Your task to perform on an android device: Turn on the flashlight Image 0: 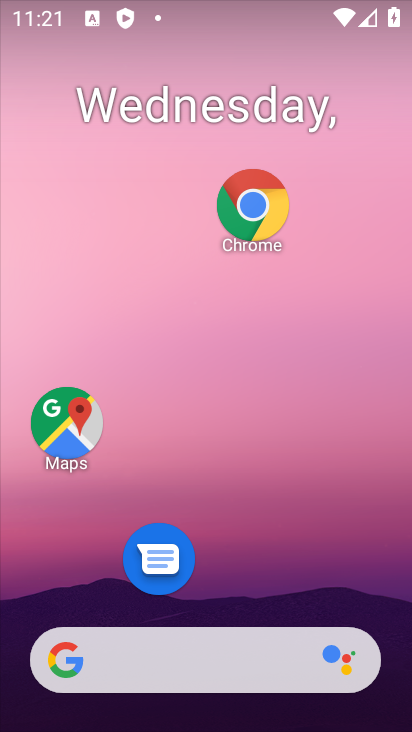
Step 0: drag from (270, 634) to (306, 19)
Your task to perform on an android device: Turn on the flashlight Image 1: 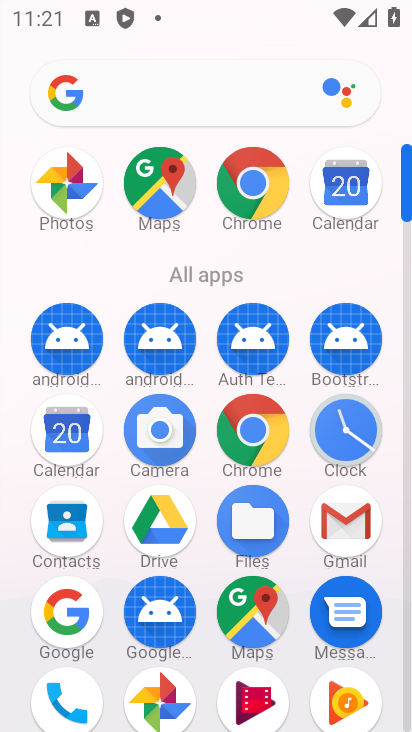
Step 1: drag from (203, 653) to (231, 138)
Your task to perform on an android device: Turn on the flashlight Image 2: 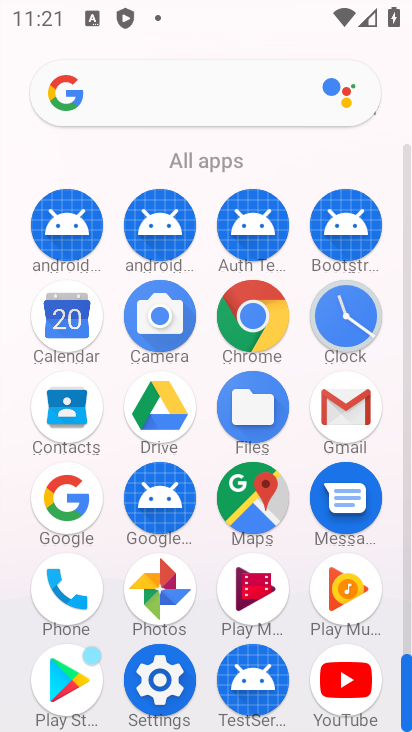
Step 2: click (154, 667)
Your task to perform on an android device: Turn on the flashlight Image 3: 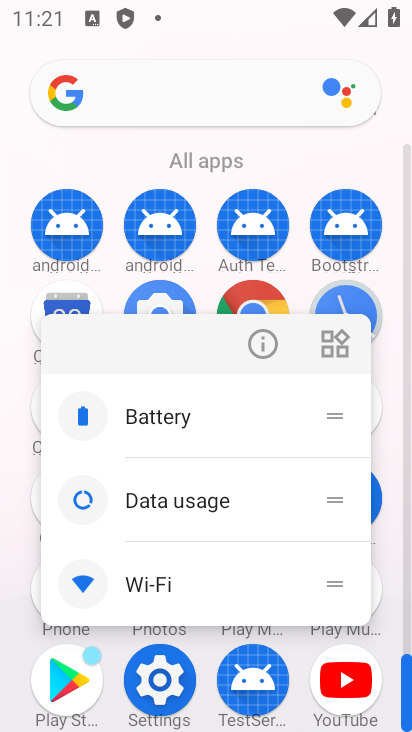
Step 3: click (170, 681)
Your task to perform on an android device: Turn on the flashlight Image 4: 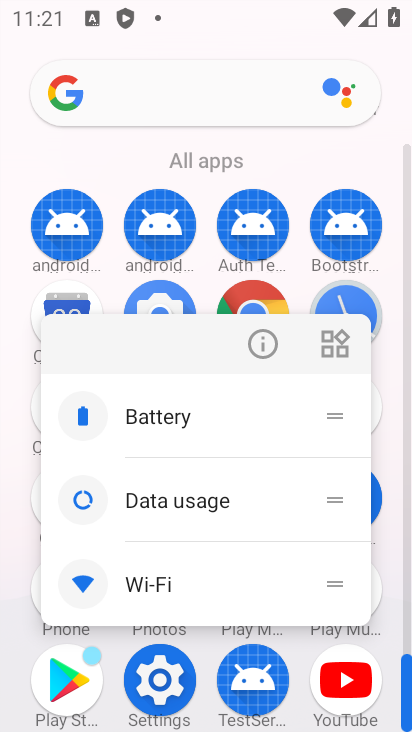
Step 4: click (169, 680)
Your task to perform on an android device: Turn on the flashlight Image 5: 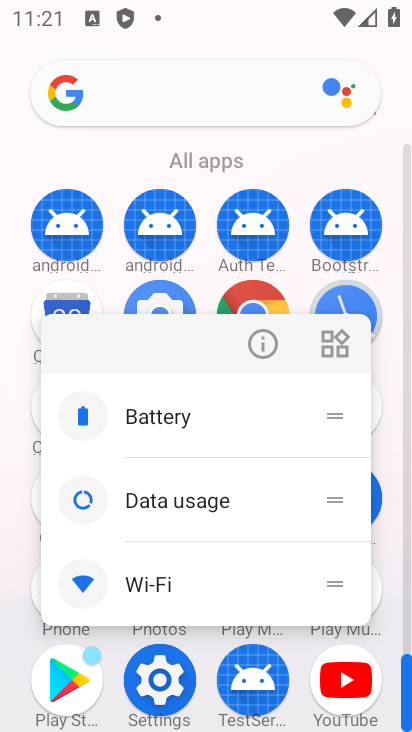
Step 5: click (169, 680)
Your task to perform on an android device: Turn on the flashlight Image 6: 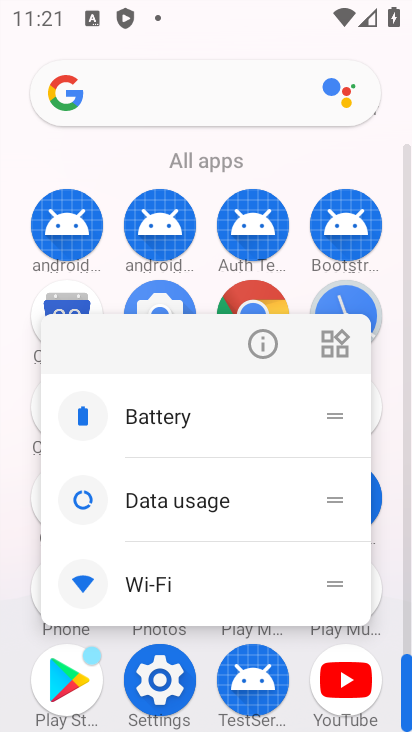
Step 6: click (169, 680)
Your task to perform on an android device: Turn on the flashlight Image 7: 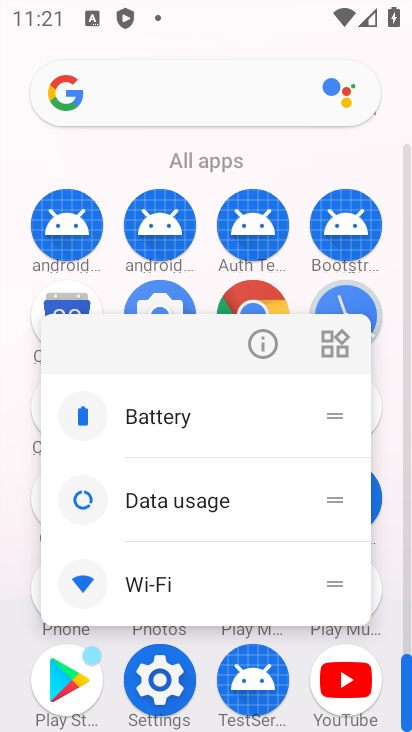
Step 7: click (169, 680)
Your task to perform on an android device: Turn on the flashlight Image 8: 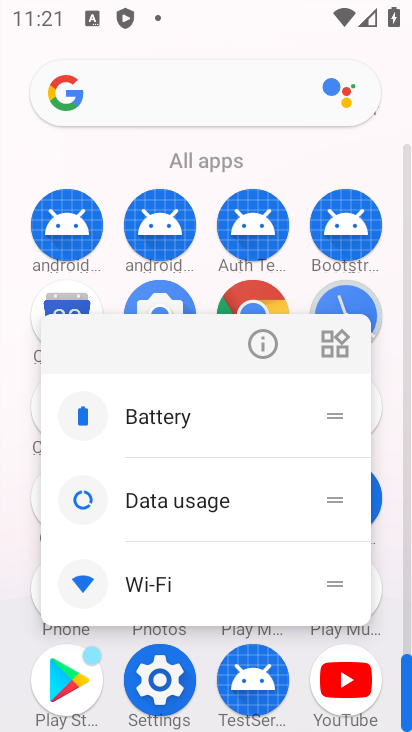
Step 8: click (169, 680)
Your task to perform on an android device: Turn on the flashlight Image 9: 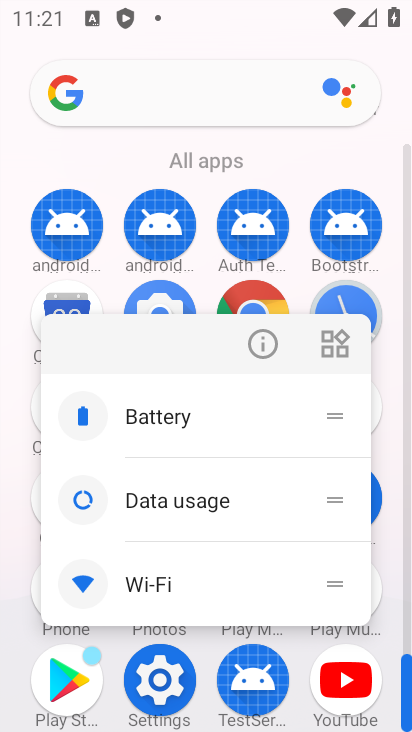
Step 9: click (169, 680)
Your task to perform on an android device: Turn on the flashlight Image 10: 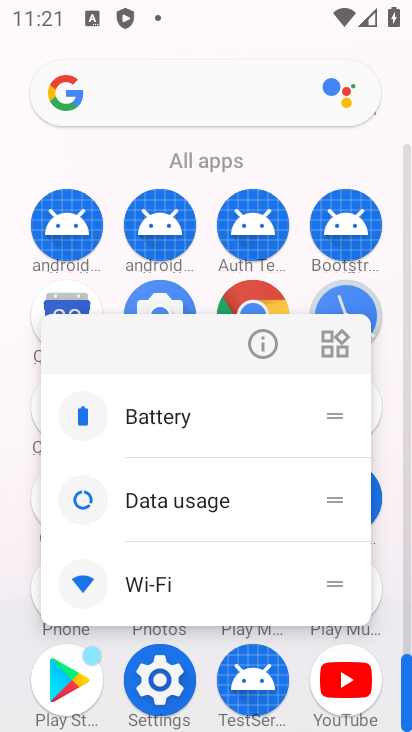
Step 10: click (169, 677)
Your task to perform on an android device: Turn on the flashlight Image 11: 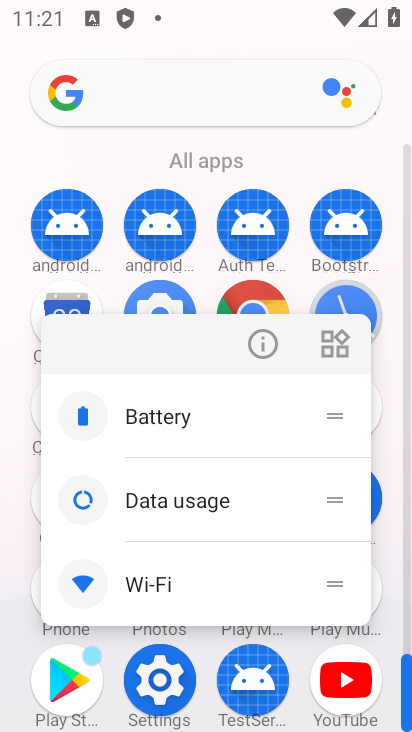
Step 11: task complete